Your task to perform on an android device: make emails show in primary in the gmail app Image 0: 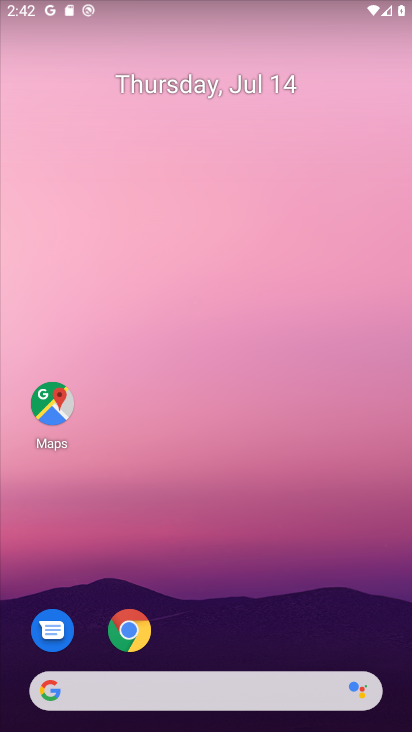
Step 0: drag from (280, 701) to (179, 244)
Your task to perform on an android device: make emails show in primary in the gmail app Image 1: 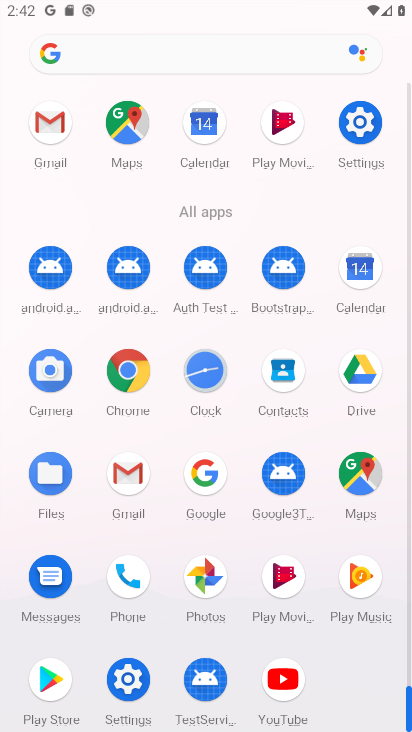
Step 1: click (130, 478)
Your task to perform on an android device: make emails show in primary in the gmail app Image 2: 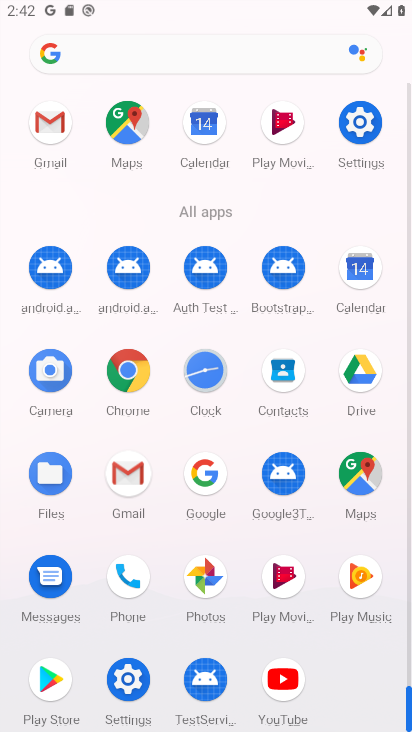
Step 2: click (127, 476)
Your task to perform on an android device: make emails show in primary in the gmail app Image 3: 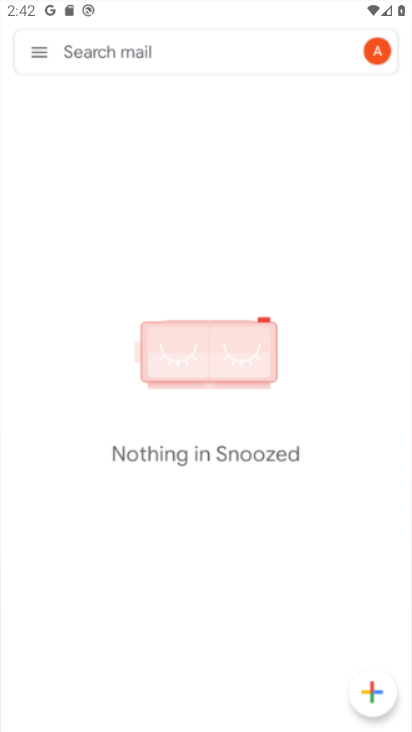
Step 3: click (127, 476)
Your task to perform on an android device: make emails show in primary in the gmail app Image 4: 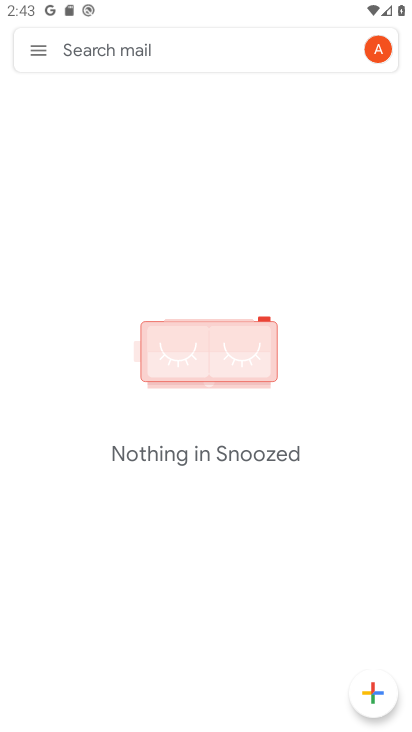
Step 4: press back button
Your task to perform on an android device: make emails show in primary in the gmail app Image 5: 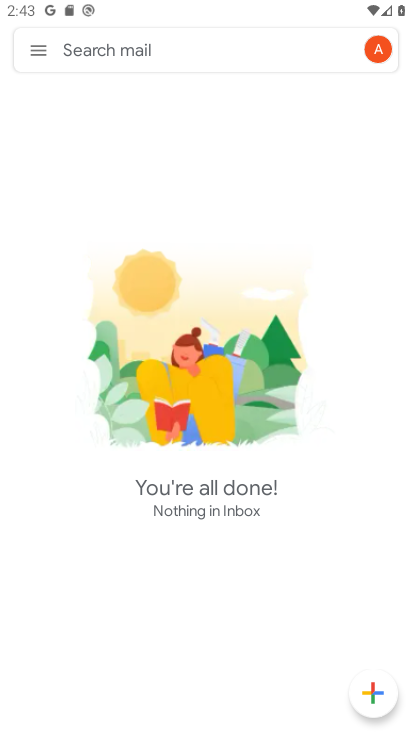
Step 5: drag from (194, 538) to (66, 151)
Your task to perform on an android device: make emails show in primary in the gmail app Image 6: 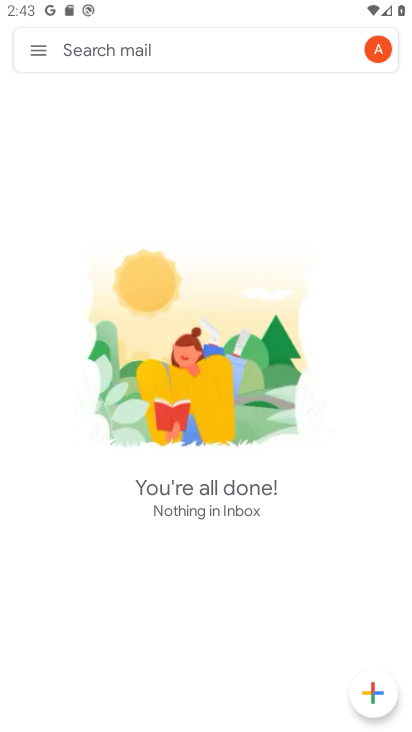
Step 6: drag from (145, 505) to (83, 274)
Your task to perform on an android device: make emails show in primary in the gmail app Image 7: 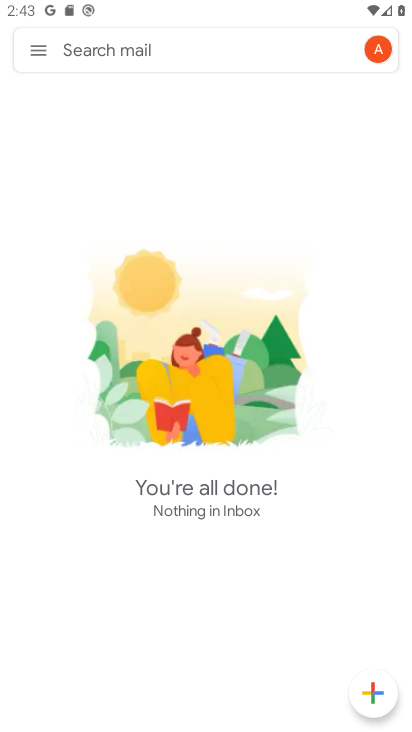
Step 7: drag from (168, 509) to (86, 284)
Your task to perform on an android device: make emails show in primary in the gmail app Image 8: 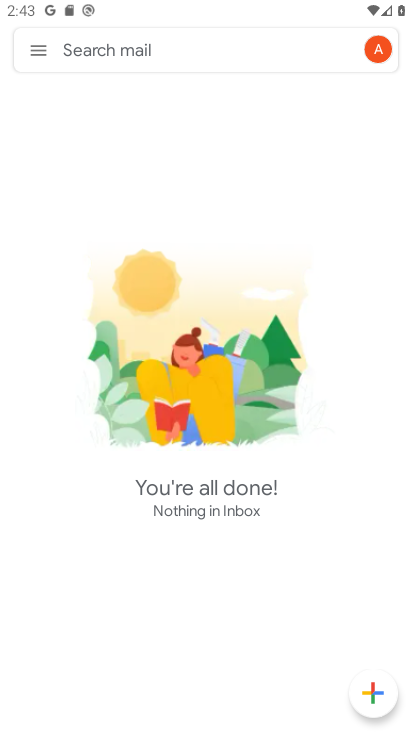
Step 8: click (35, 44)
Your task to perform on an android device: make emails show in primary in the gmail app Image 9: 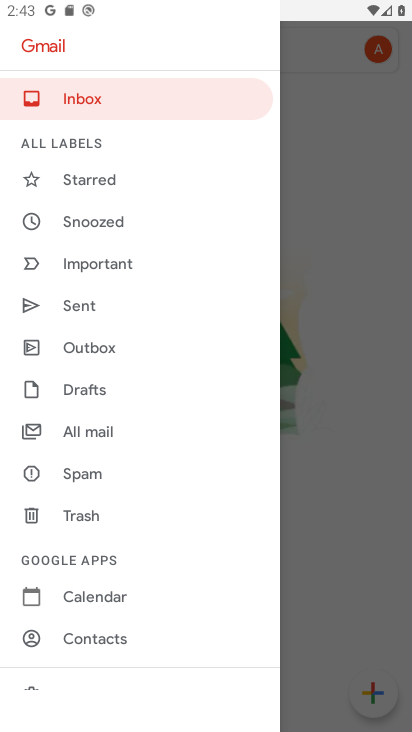
Step 9: drag from (146, 601) to (95, 183)
Your task to perform on an android device: make emails show in primary in the gmail app Image 10: 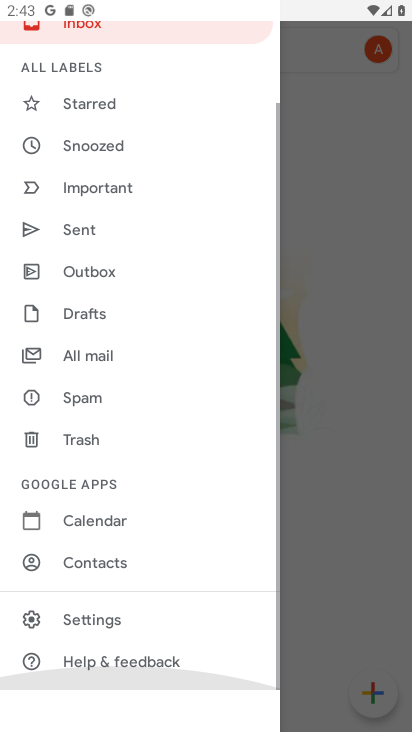
Step 10: drag from (124, 595) to (101, 215)
Your task to perform on an android device: make emails show in primary in the gmail app Image 11: 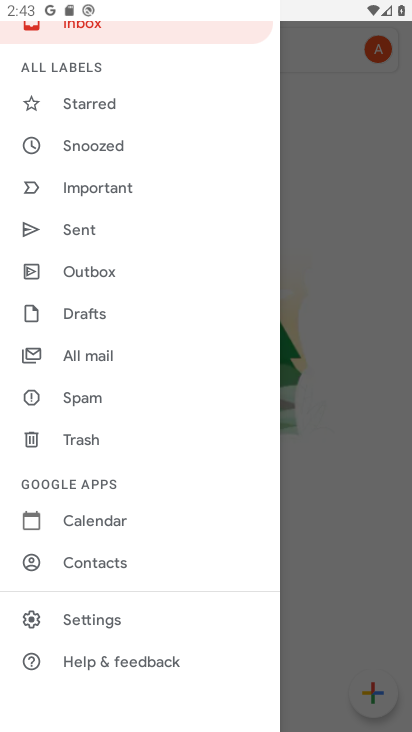
Step 11: click (77, 620)
Your task to perform on an android device: make emails show in primary in the gmail app Image 12: 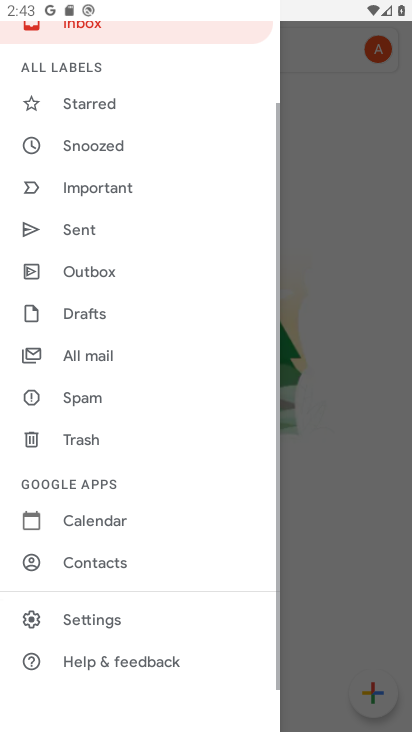
Step 12: click (77, 620)
Your task to perform on an android device: make emails show in primary in the gmail app Image 13: 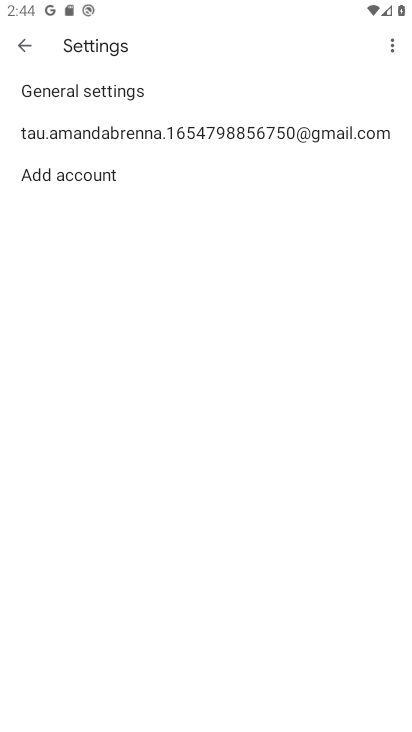
Step 13: click (115, 154)
Your task to perform on an android device: make emails show in primary in the gmail app Image 14: 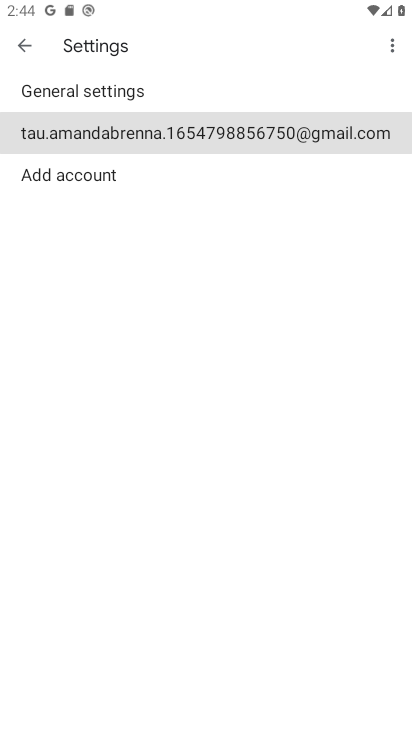
Step 14: click (119, 145)
Your task to perform on an android device: make emails show in primary in the gmail app Image 15: 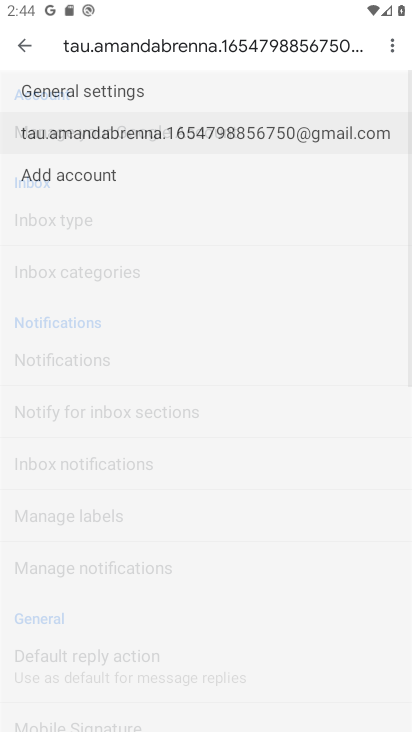
Step 15: click (119, 145)
Your task to perform on an android device: make emails show in primary in the gmail app Image 16: 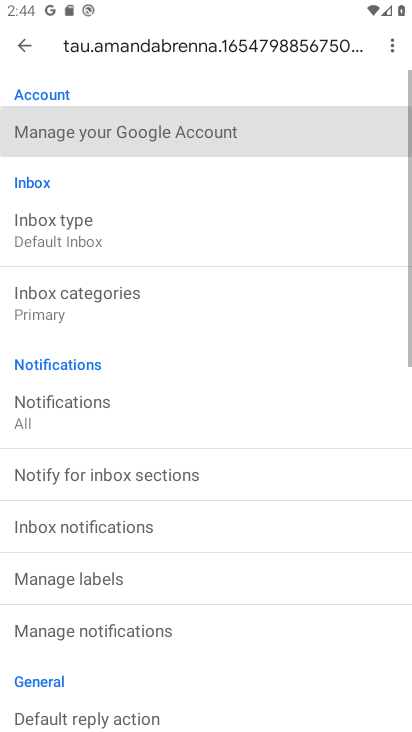
Step 16: click (119, 145)
Your task to perform on an android device: make emails show in primary in the gmail app Image 17: 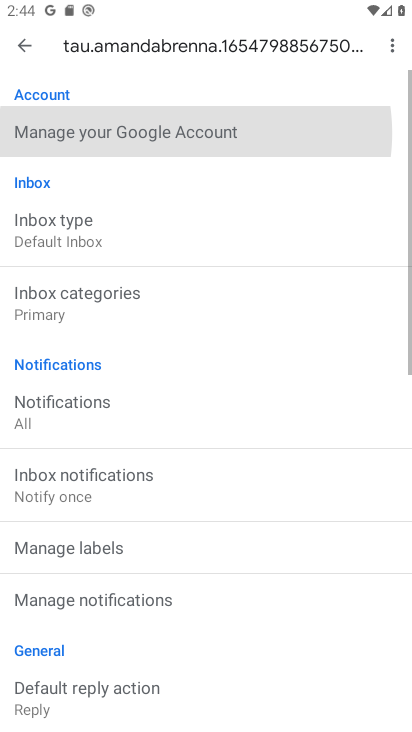
Step 17: click (120, 144)
Your task to perform on an android device: make emails show in primary in the gmail app Image 18: 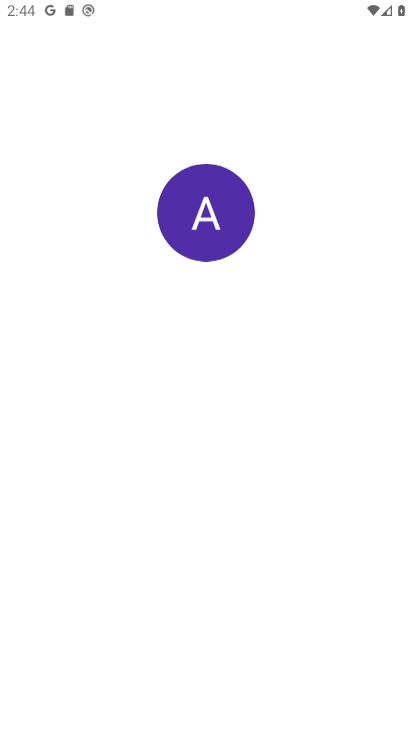
Step 18: press back button
Your task to perform on an android device: make emails show in primary in the gmail app Image 19: 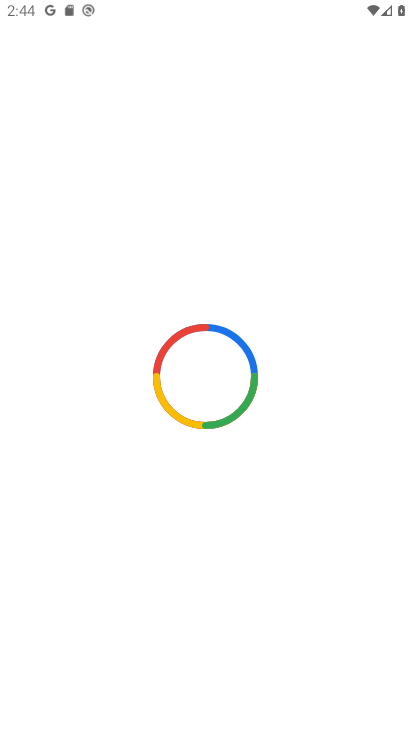
Step 19: press home button
Your task to perform on an android device: make emails show in primary in the gmail app Image 20: 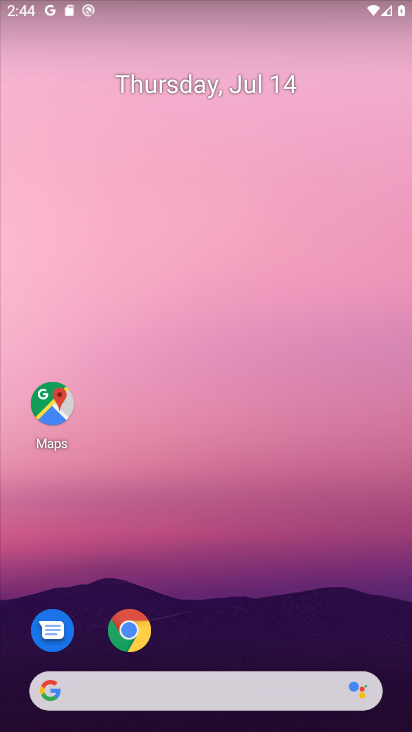
Step 20: drag from (289, 618) to (155, 127)
Your task to perform on an android device: make emails show in primary in the gmail app Image 21: 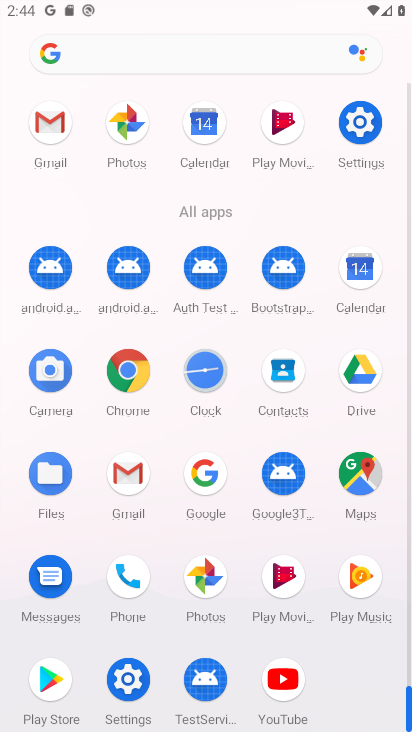
Step 21: click (121, 472)
Your task to perform on an android device: make emails show in primary in the gmail app Image 22: 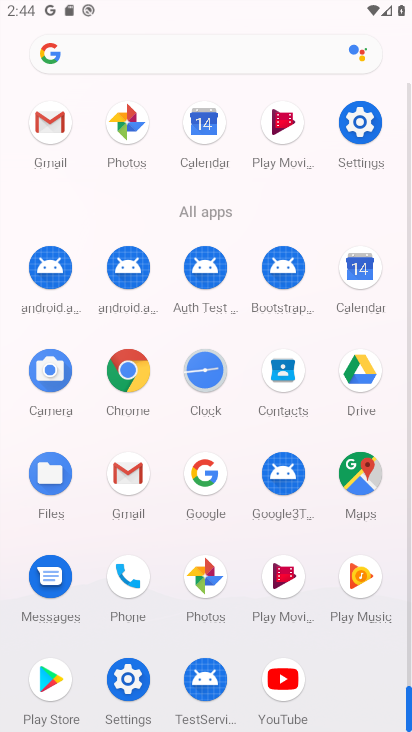
Step 22: click (121, 472)
Your task to perform on an android device: make emails show in primary in the gmail app Image 23: 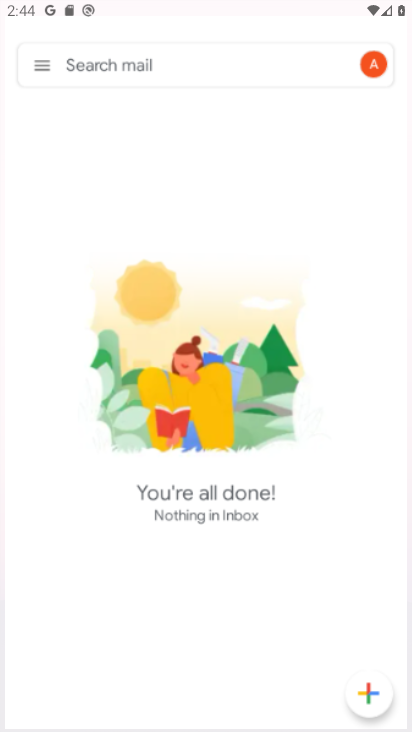
Step 23: click (121, 472)
Your task to perform on an android device: make emails show in primary in the gmail app Image 24: 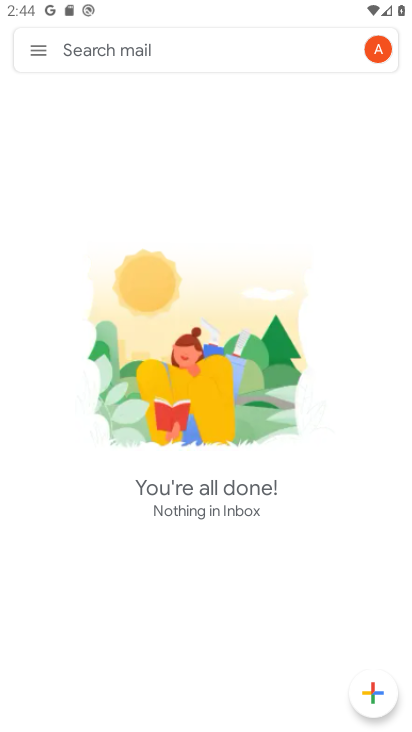
Step 24: click (126, 470)
Your task to perform on an android device: make emails show in primary in the gmail app Image 25: 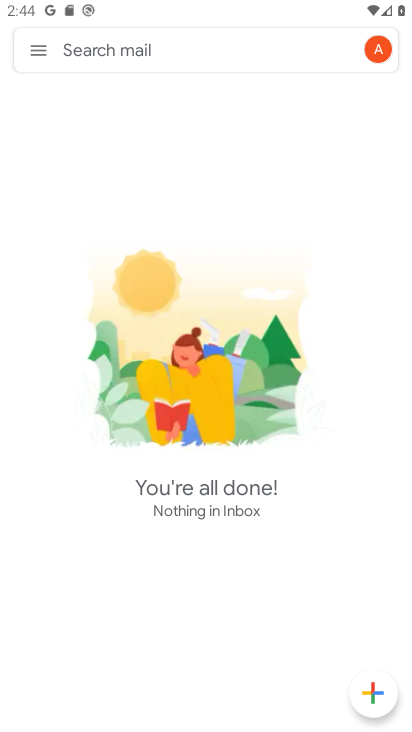
Step 25: click (47, 47)
Your task to perform on an android device: make emails show in primary in the gmail app Image 26: 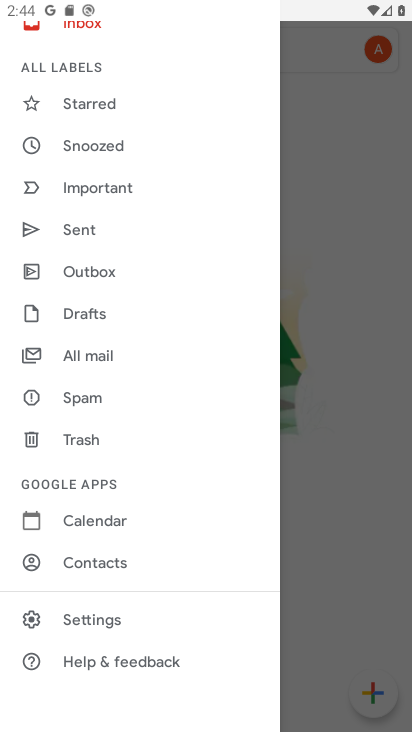
Step 26: click (87, 358)
Your task to perform on an android device: make emails show in primary in the gmail app Image 27: 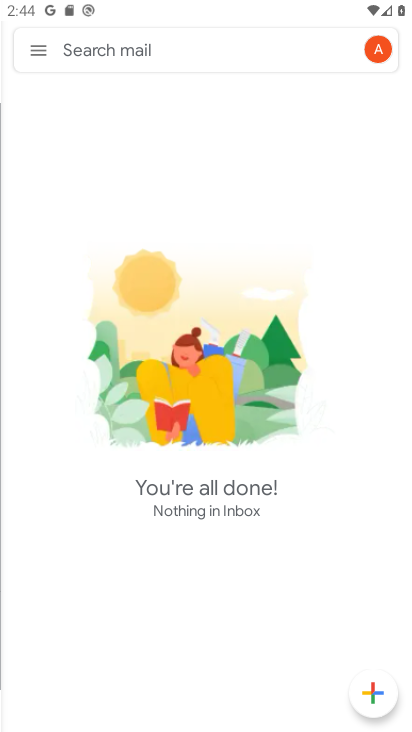
Step 27: click (102, 622)
Your task to perform on an android device: make emails show in primary in the gmail app Image 28: 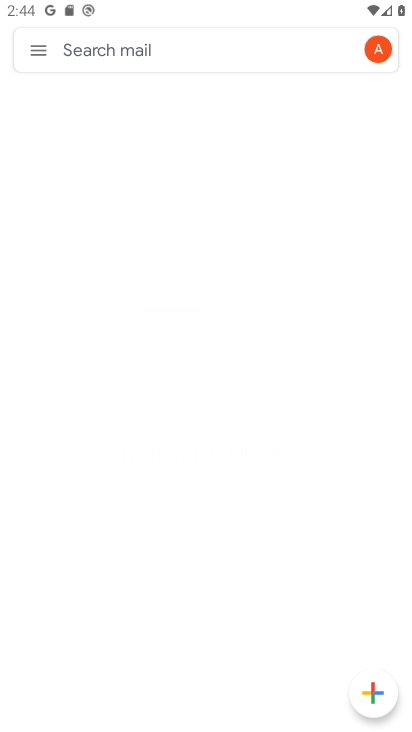
Step 28: click (100, 620)
Your task to perform on an android device: make emails show in primary in the gmail app Image 29: 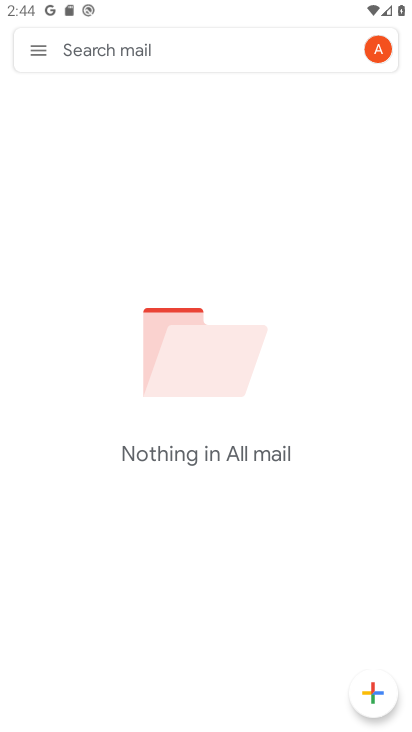
Step 29: click (27, 32)
Your task to perform on an android device: make emails show in primary in the gmail app Image 30: 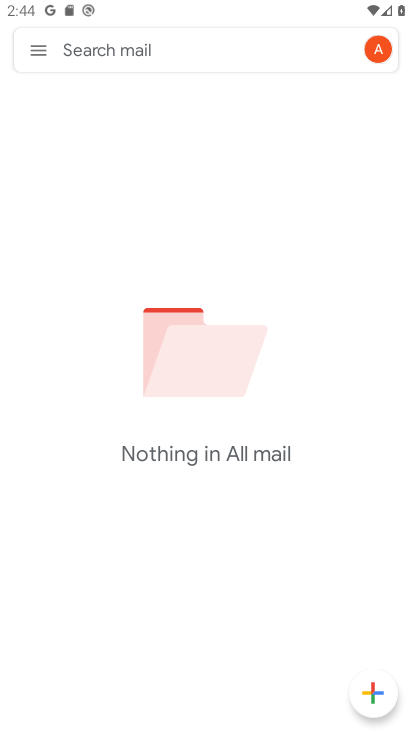
Step 30: click (31, 50)
Your task to perform on an android device: make emails show in primary in the gmail app Image 31: 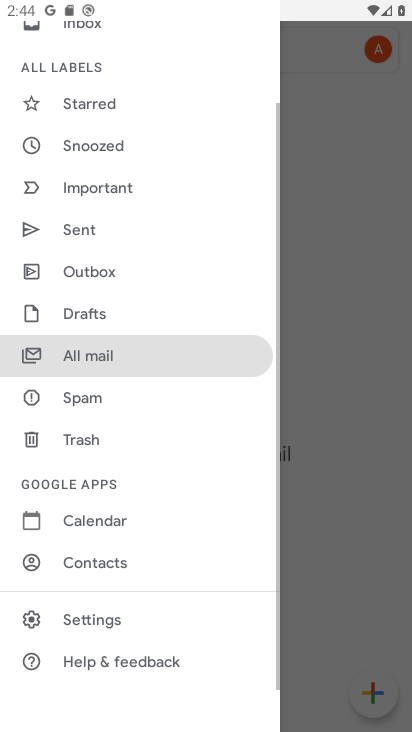
Step 31: click (83, 612)
Your task to perform on an android device: make emails show in primary in the gmail app Image 32: 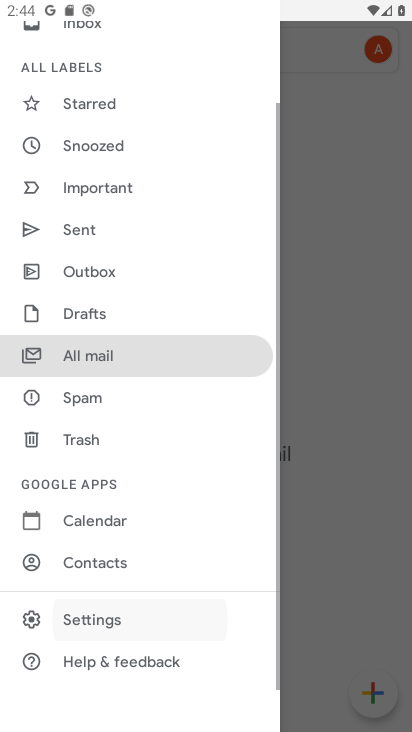
Step 32: click (83, 612)
Your task to perform on an android device: make emails show in primary in the gmail app Image 33: 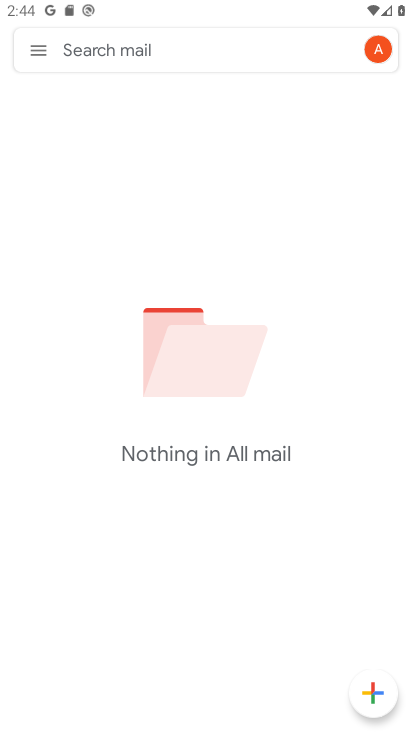
Step 33: click (88, 617)
Your task to perform on an android device: make emails show in primary in the gmail app Image 34: 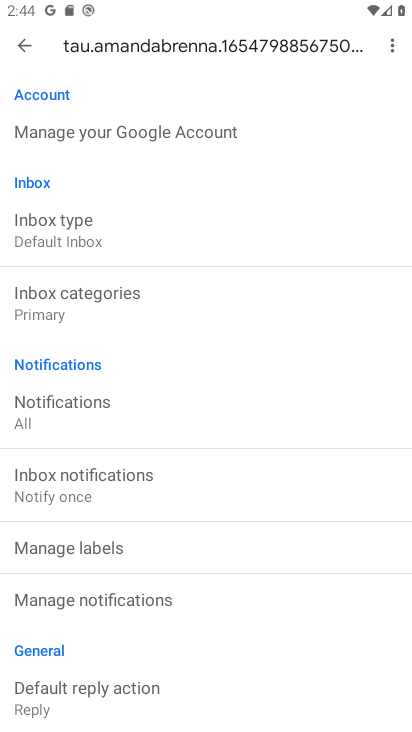
Step 34: task complete